Your task to perform on an android device: Open Amazon Image 0: 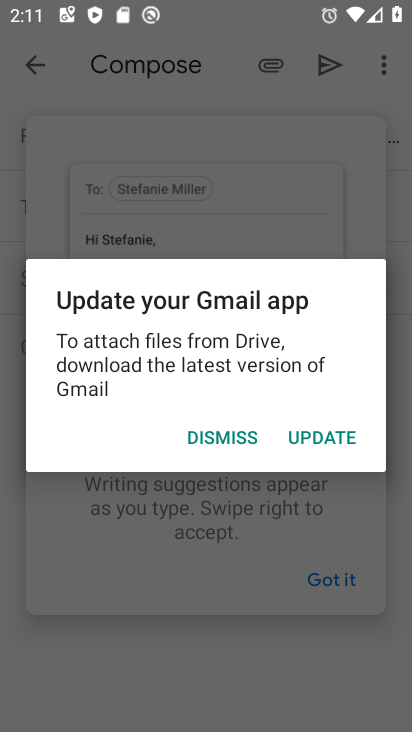
Step 0: press home button
Your task to perform on an android device: Open Amazon Image 1: 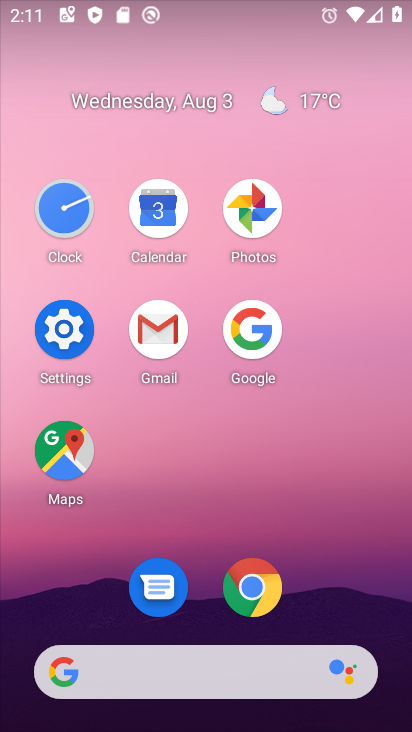
Step 1: click (243, 582)
Your task to perform on an android device: Open Amazon Image 2: 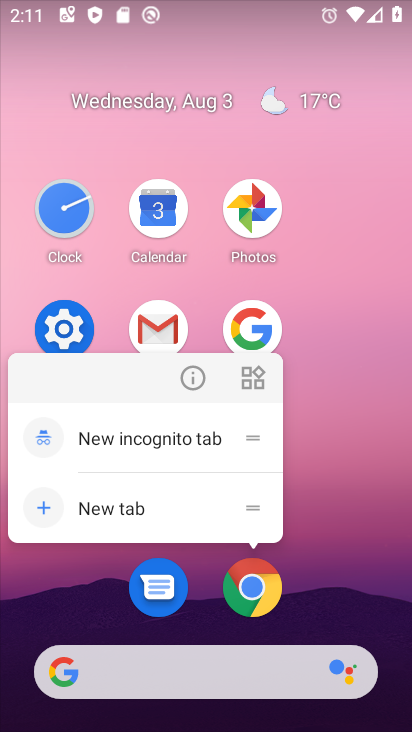
Step 2: click (243, 582)
Your task to perform on an android device: Open Amazon Image 3: 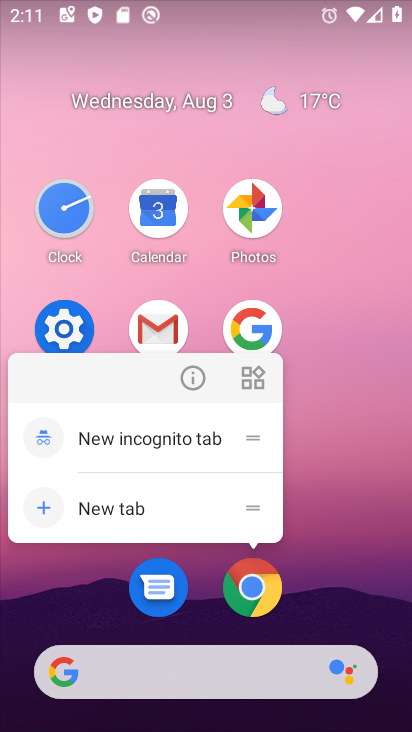
Step 3: click (244, 584)
Your task to perform on an android device: Open Amazon Image 4: 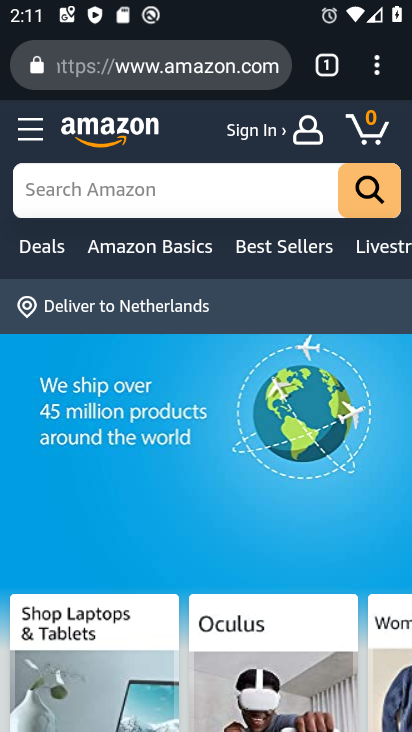
Step 4: task complete